Your task to perform on an android device: Show me recent news Image 0: 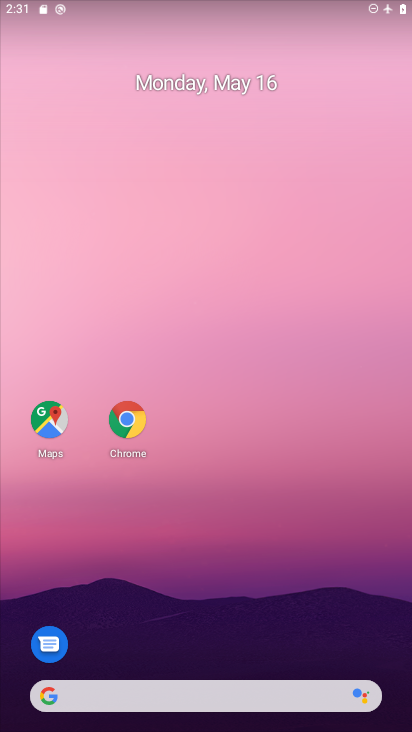
Step 0: drag from (167, 568) to (184, 443)
Your task to perform on an android device: Show me recent news Image 1: 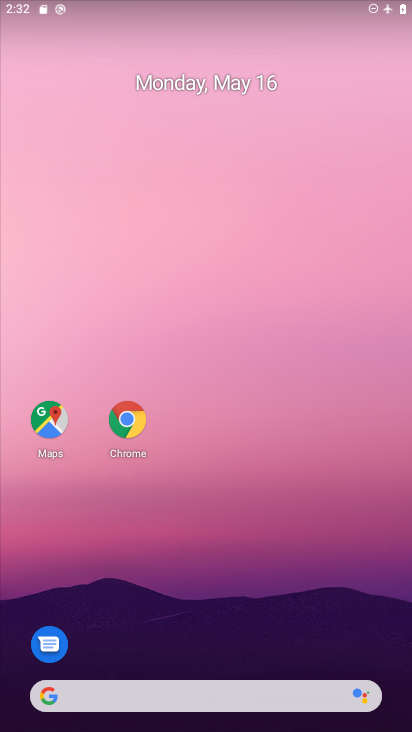
Step 1: drag from (178, 642) to (10, 429)
Your task to perform on an android device: Show me recent news Image 2: 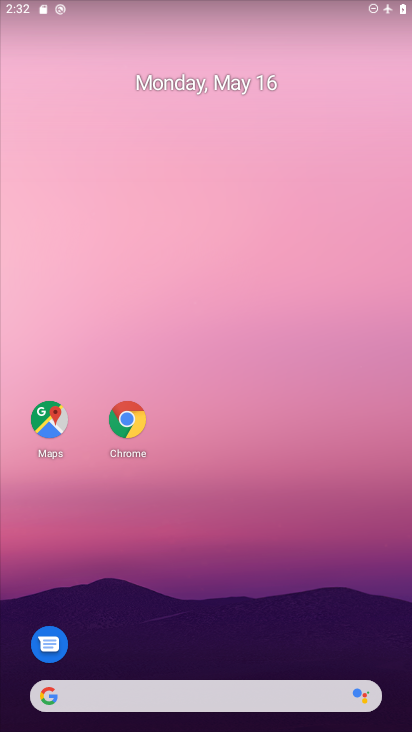
Step 2: drag from (202, 617) to (223, 128)
Your task to perform on an android device: Show me recent news Image 3: 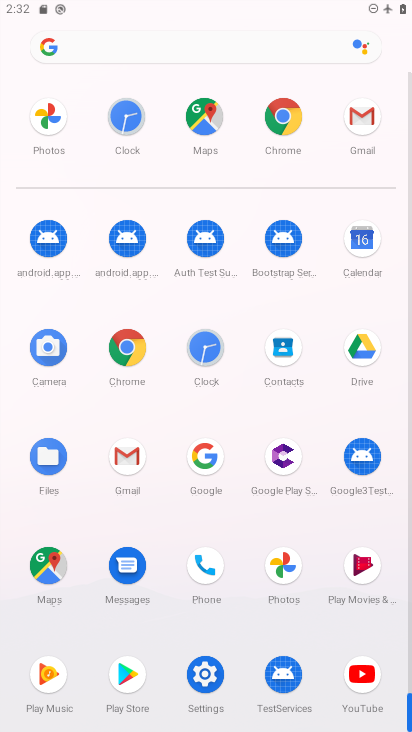
Step 3: click (162, 50)
Your task to perform on an android device: Show me recent news Image 4: 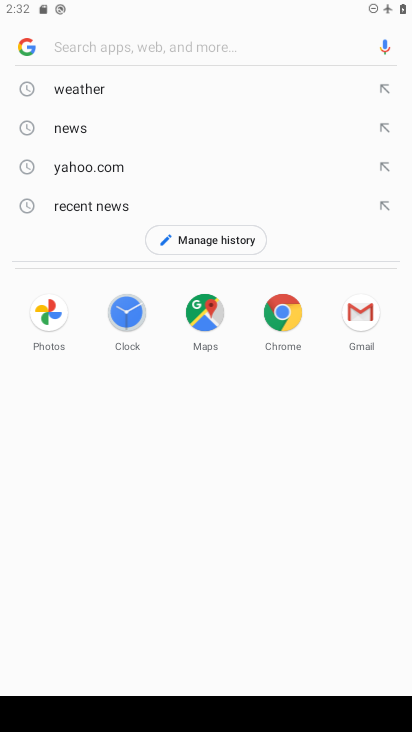
Step 4: click (87, 207)
Your task to perform on an android device: Show me recent news Image 5: 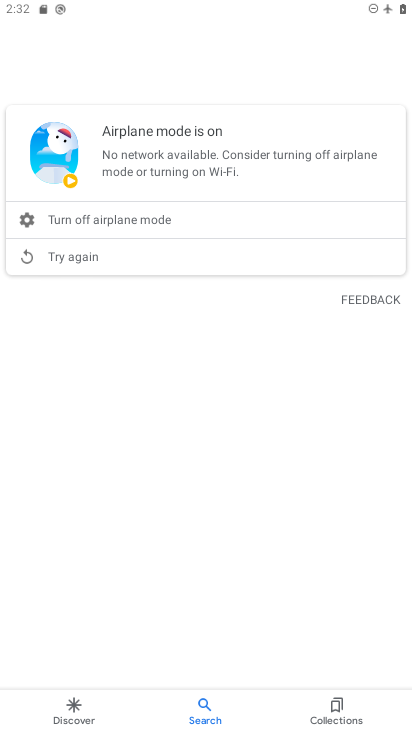
Step 5: task complete